Your task to perform on an android device: show emergency info Image 0: 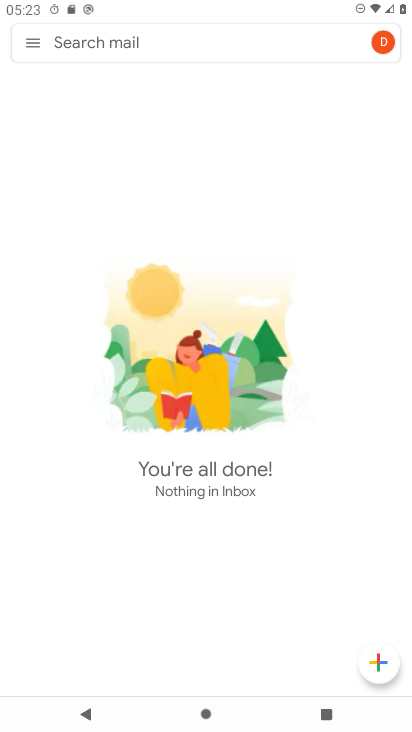
Step 0: press home button
Your task to perform on an android device: show emergency info Image 1: 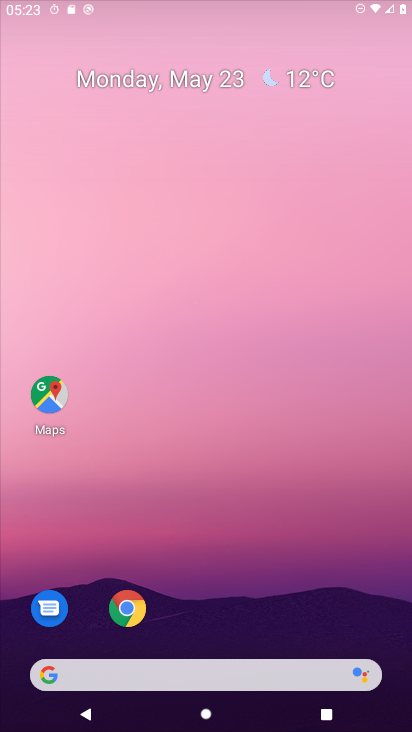
Step 1: drag from (247, 533) to (104, 20)
Your task to perform on an android device: show emergency info Image 2: 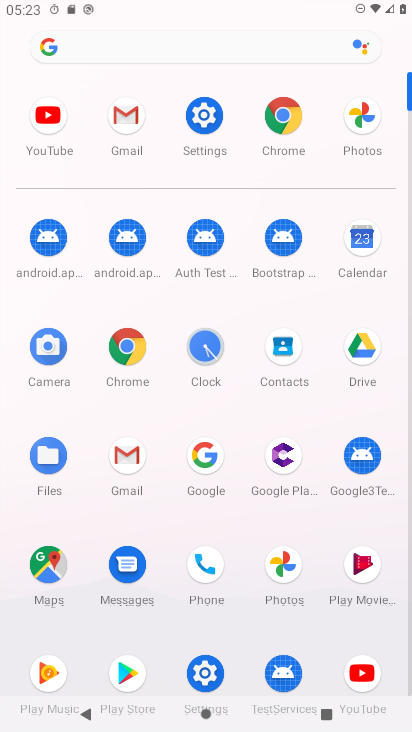
Step 2: click (208, 116)
Your task to perform on an android device: show emergency info Image 3: 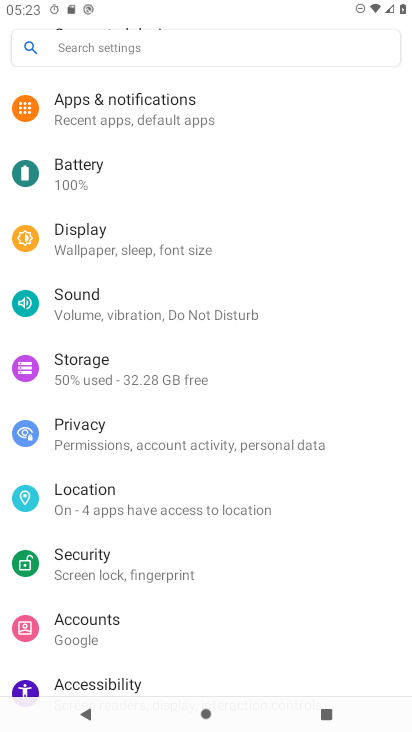
Step 3: drag from (274, 631) to (278, 52)
Your task to perform on an android device: show emergency info Image 4: 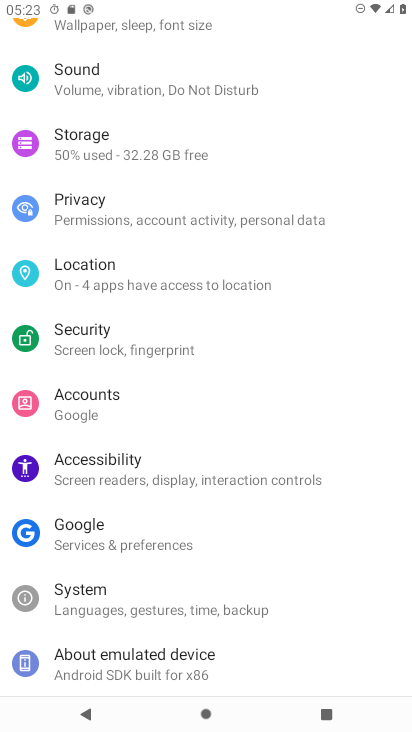
Step 4: click (164, 664)
Your task to perform on an android device: show emergency info Image 5: 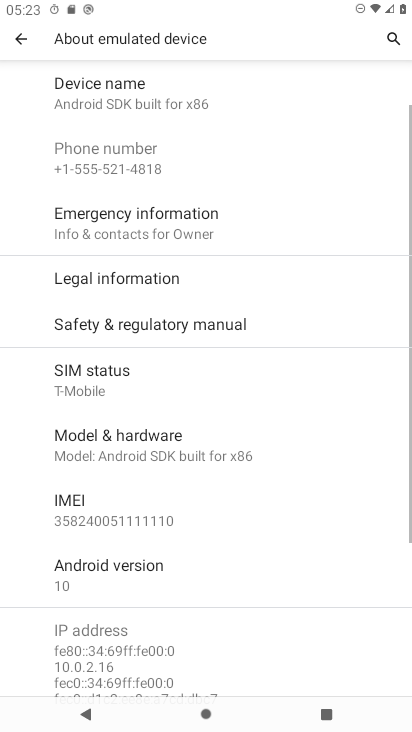
Step 5: click (231, 238)
Your task to perform on an android device: show emergency info Image 6: 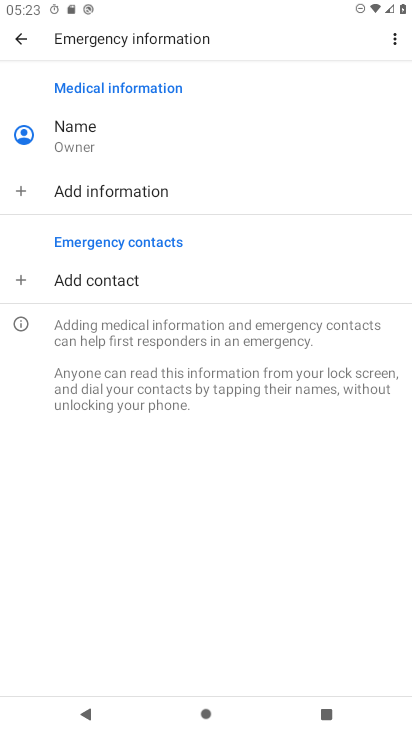
Step 6: task complete